Your task to perform on an android device: uninstall "Facebook Lite" Image 0: 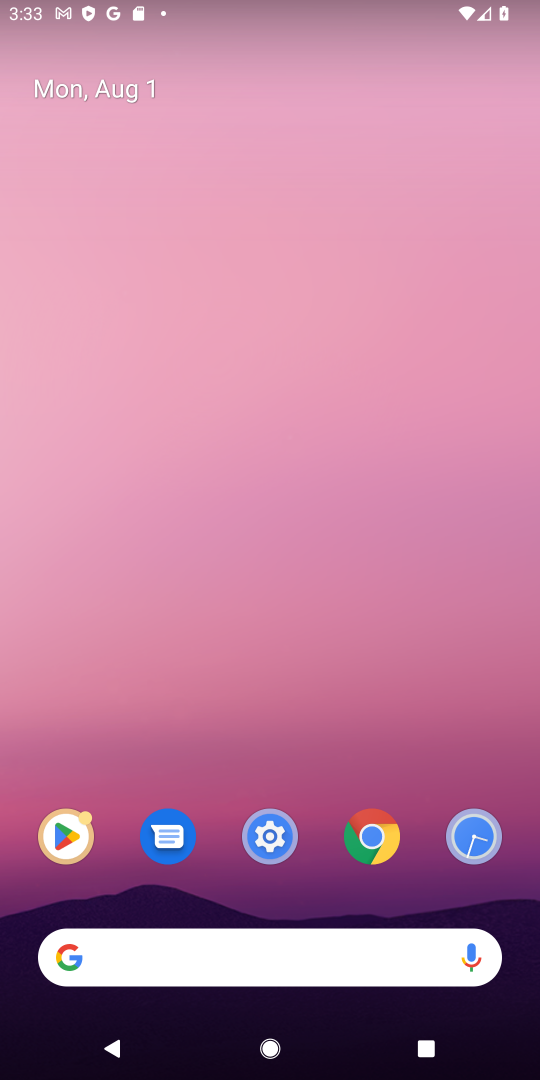
Step 0: drag from (231, 926) to (225, 29)
Your task to perform on an android device: uninstall "Facebook Lite" Image 1: 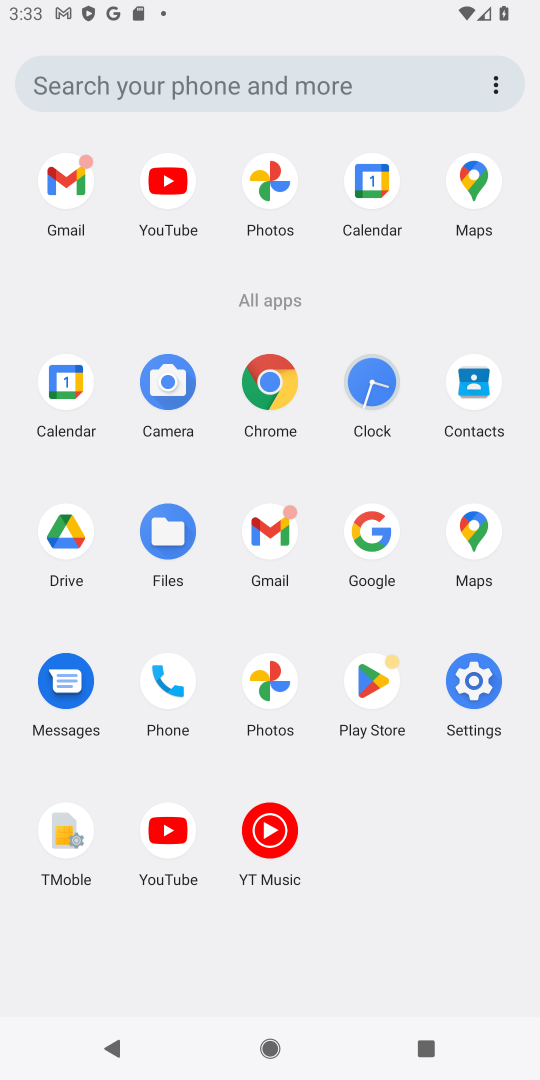
Step 1: click (370, 685)
Your task to perform on an android device: uninstall "Facebook Lite" Image 2: 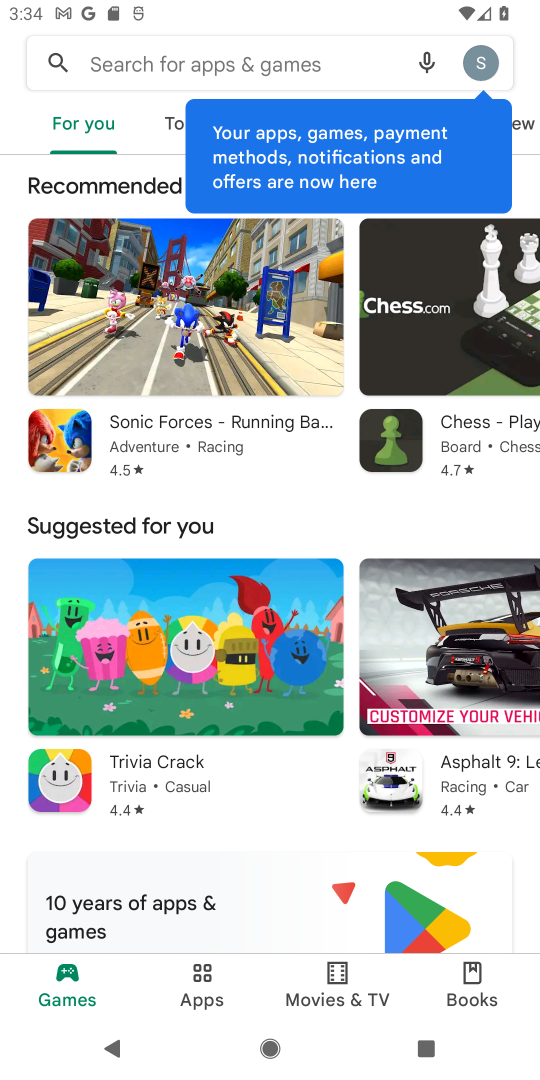
Step 2: click (141, 60)
Your task to perform on an android device: uninstall "Facebook Lite" Image 3: 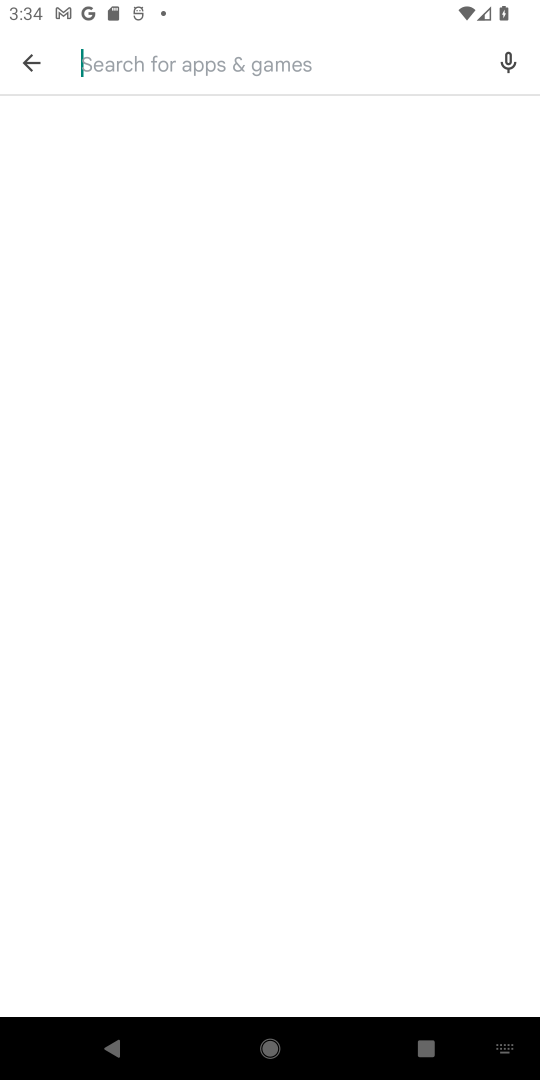
Step 3: type "Facebook Lite"
Your task to perform on an android device: uninstall "Facebook Lite" Image 4: 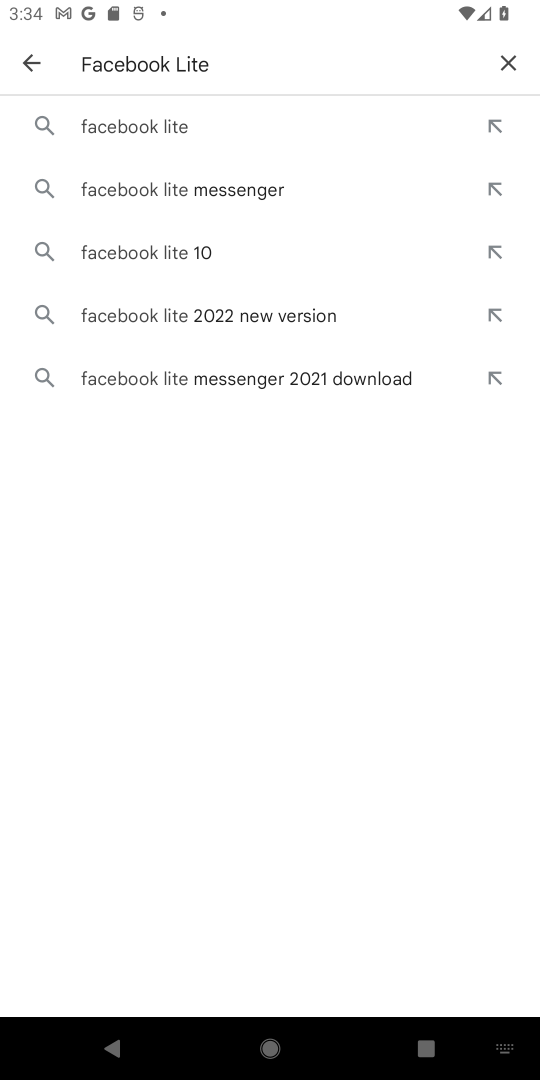
Step 4: click (157, 111)
Your task to perform on an android device: uninstall "Facebook Lite" Image 5: 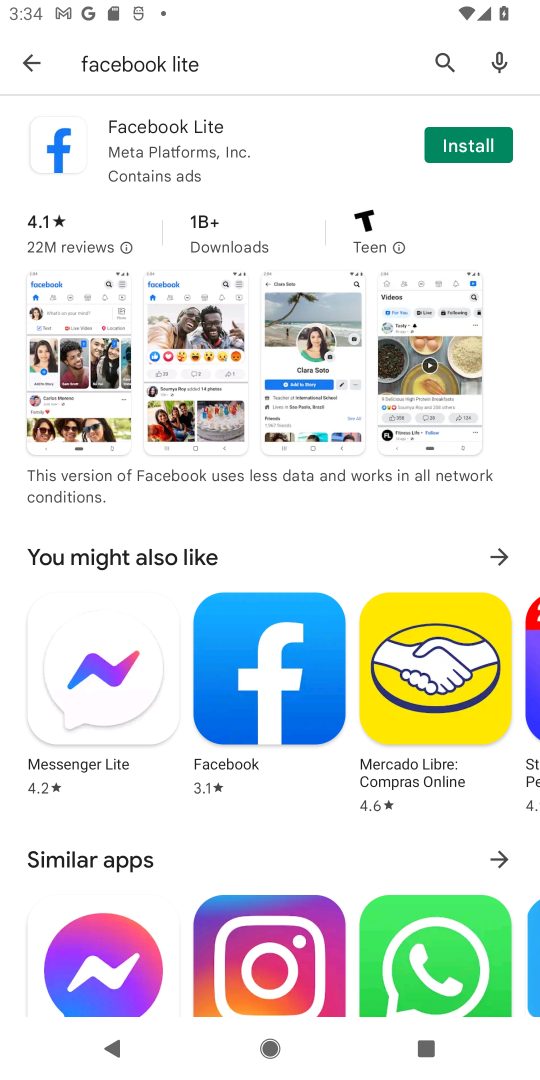
Step 5: task complete